Your task to perform on an android device: Search for the best 4K TV Image 0: 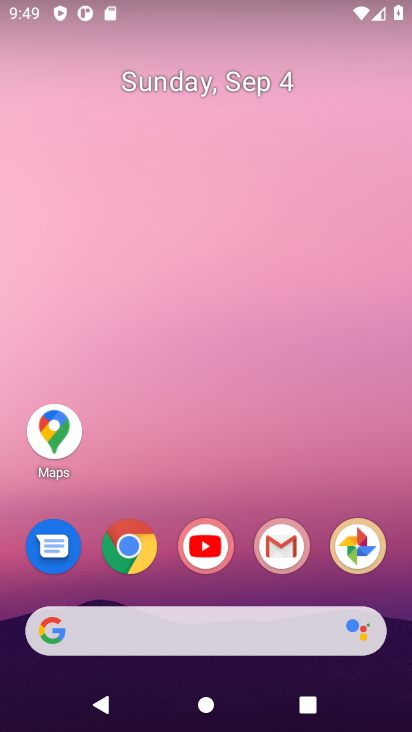
Step 0: click (132, 549)
Your task to perform on an android device: Search for the best 4K TV Image 1: 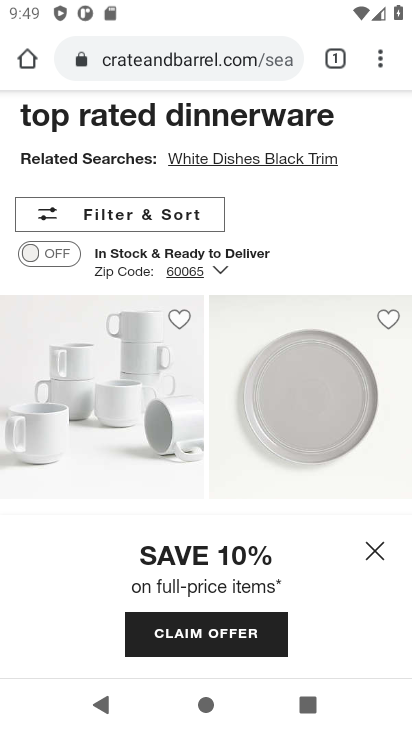
Step 1: click (173, 70)
Your task to perform on an android device: Search for the best 4K TV Image 2: 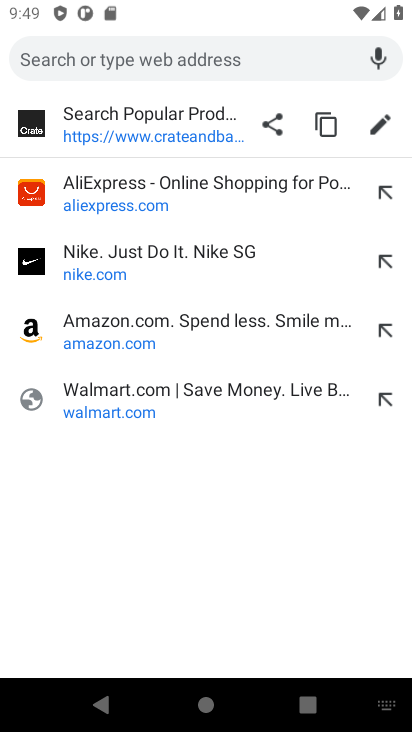
Step 2: type "best 4K TV"
Your task to perform on an android device: Search for the best 4K TV Image 3: 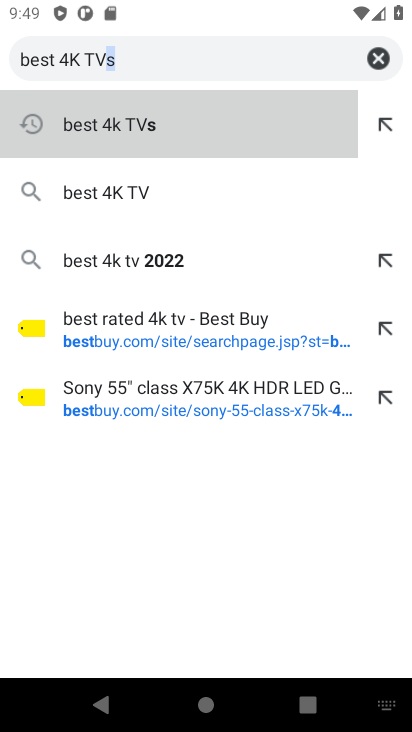
Step 3: click (137, 130)
Your task to perform on an android device: Search for the best 4K TV Image 4: 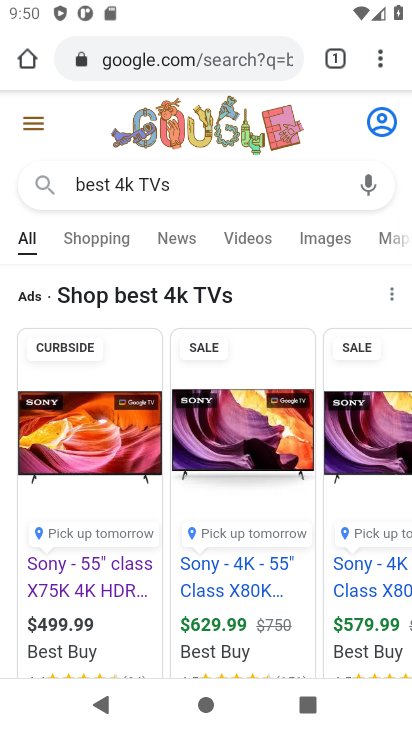
Step 4: click (97, 561)
Your task to perform on an android device: Search for the best 4K TV Image 5: 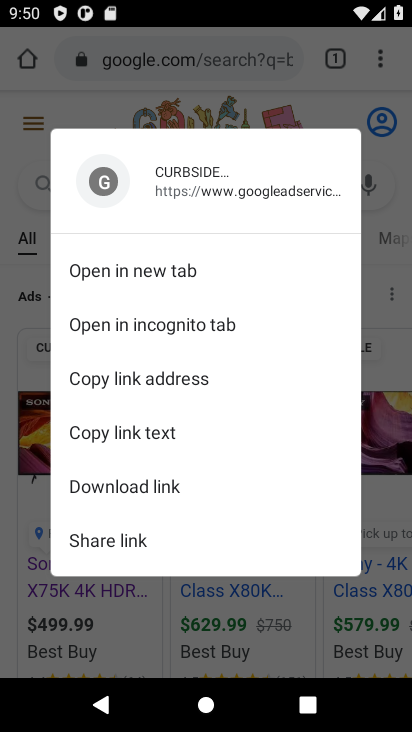
Step 5: click (80, 592)
Your task to perform on an android device: Search for the best 4K TV Image 6: 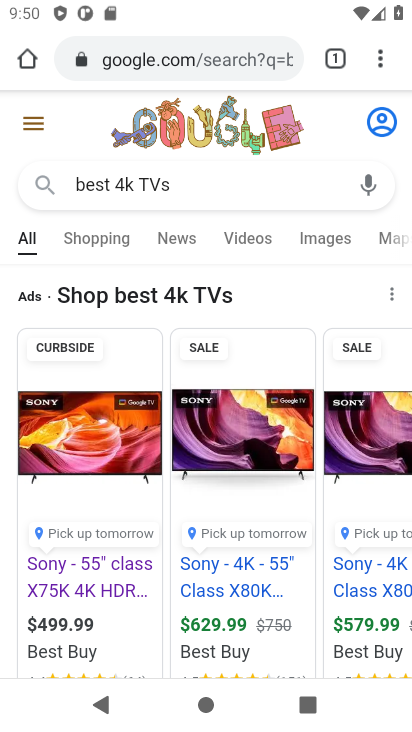
Step 6: click (84, 477)
Your task to perform on an android device: Search for the best 4K TV Image 7: 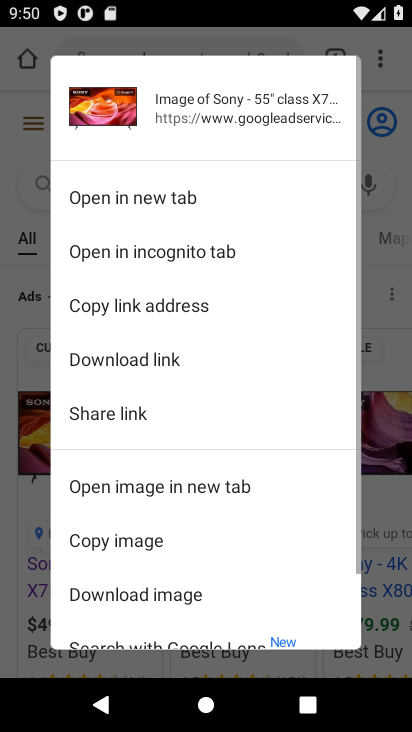
Step 7: click (32, 452)
Your task to perform on an android device: Search for the best 4K TV Image 8: 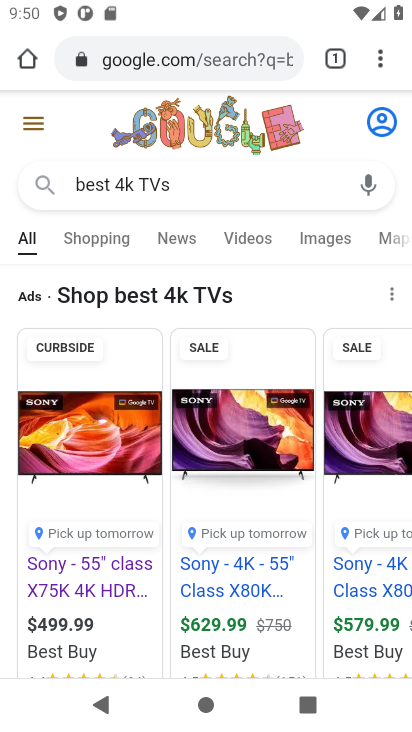
Step 8: click (95, 471)
Your task to perform on an android device: Search for the best 4K TV Image 9: 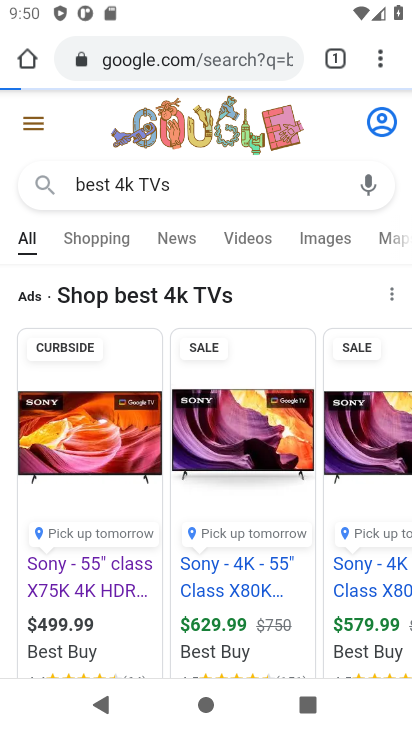
Step 9: click (99, 583)
Your task to perform on an android device: Search for the best 4K TV Image 10: 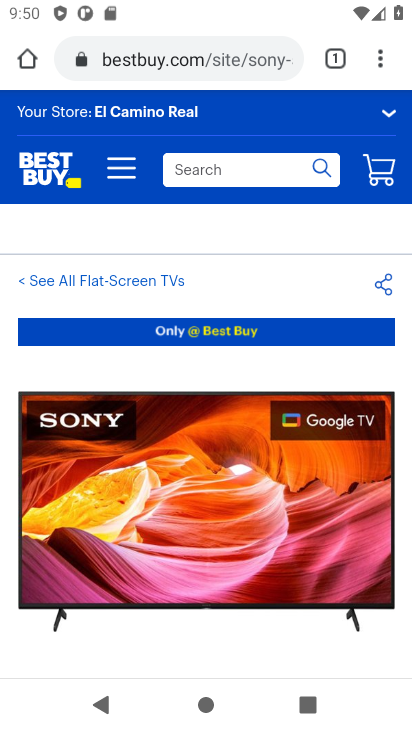
Step 10: task complete